Your task to perform on an android device: What's on my calendar tomorrow? Image 0: 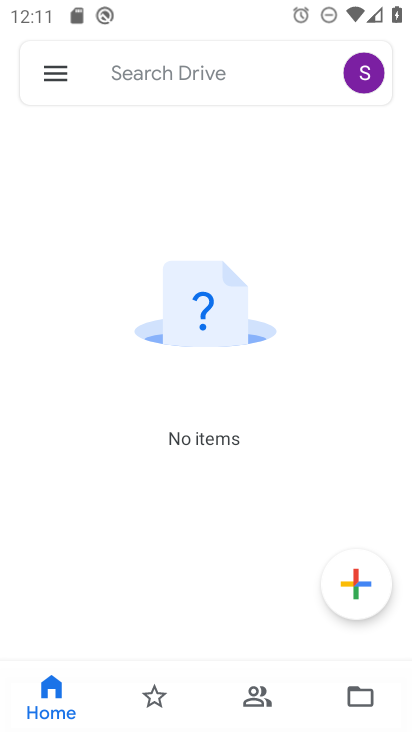
Step 0: press home button
Your task to perform on an android device: What's on my calendar tomorrow? Image 1: 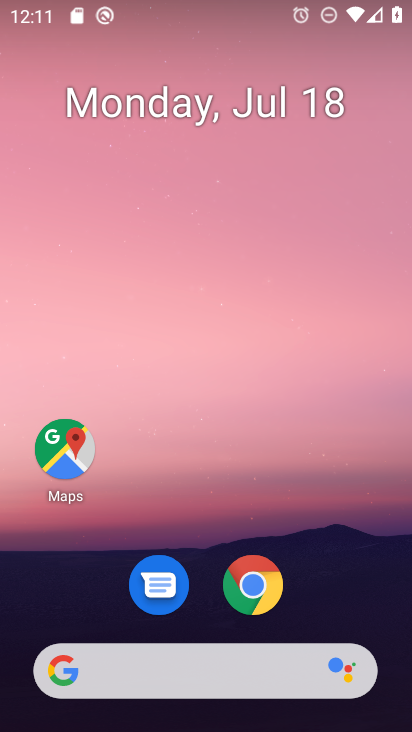
Step 1: drag from (234, 505) to (226, 106)
Your task to perform on an android device: What's on my calendar tomorrow? Image 2: 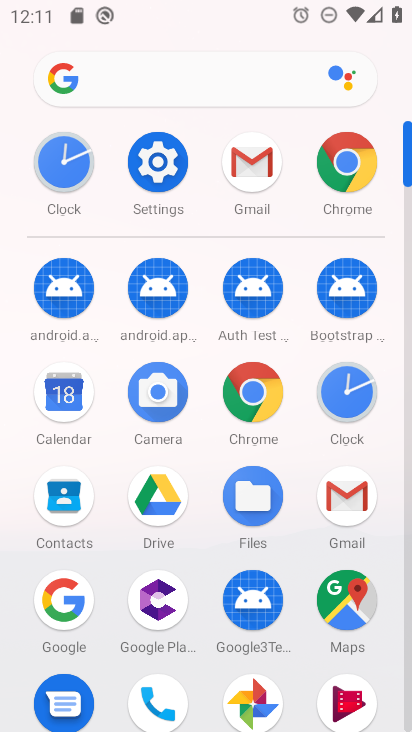
Step 2: click (57, 391)
Your task to perform on an android device: What's on my calendar tomorrow? Image 3: 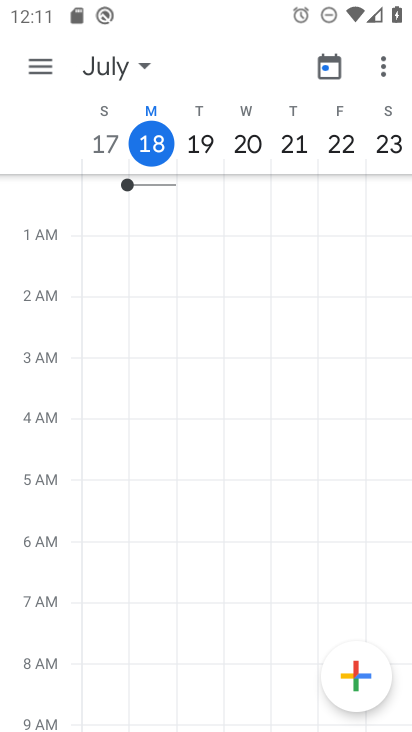
Step 3: task complete